Your task to perform on an android device: choose inbox layout in the gmail app Image 0: 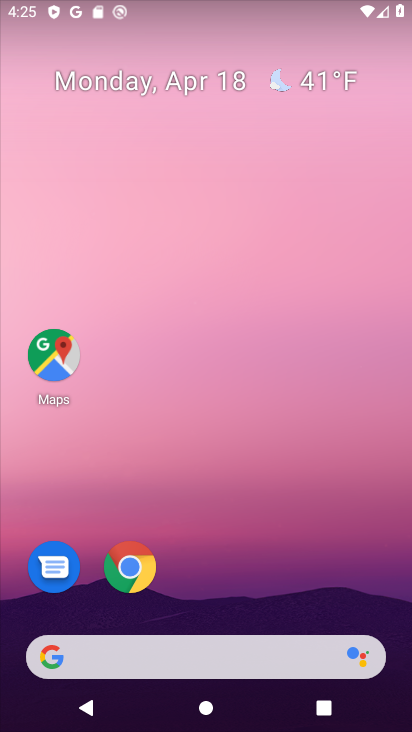
Step 0: drag from (267, 570) to (265, 137)
Your task to perform on an android device: choose inbox layout in the gmail app Image 1: 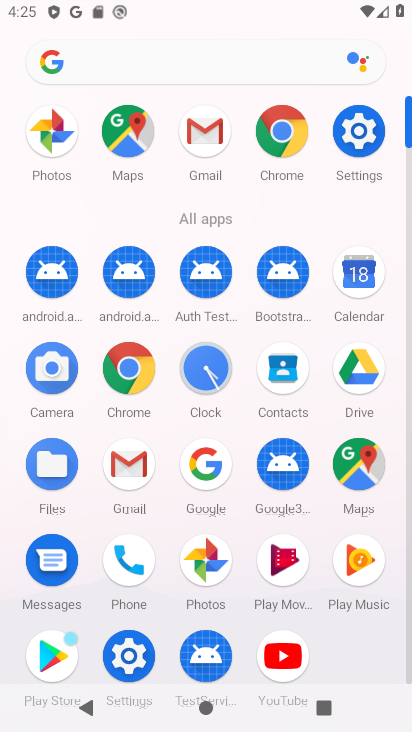
Step 1: click (135, 469)
Your task to perform on an android device: choose inbox layout in the gmail app Image 2: 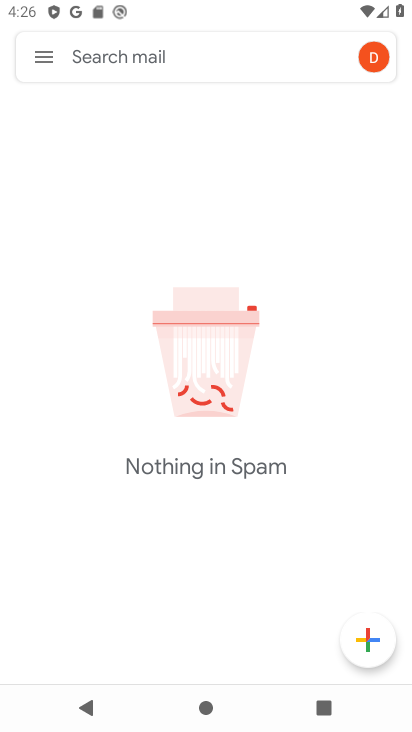
Step 2: click (48, 60)
Your task to perform on an android device: choose inbox layout in the gmail app Image 3: 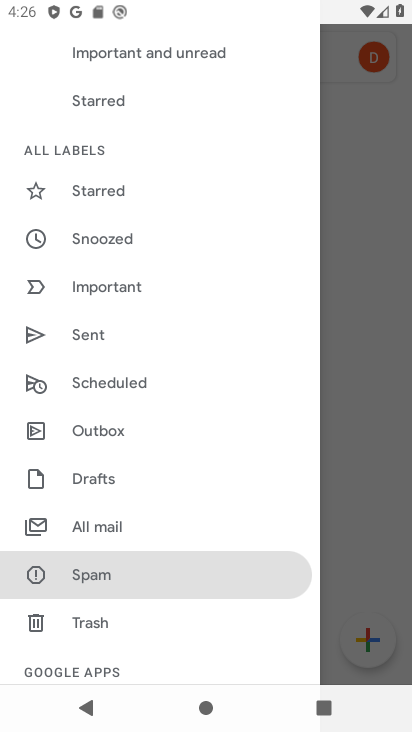
Step 3: drag from (124, 623) to (130, 493)
Your task to perform on an android device: choose inbox layout in the gmail app Image 4: 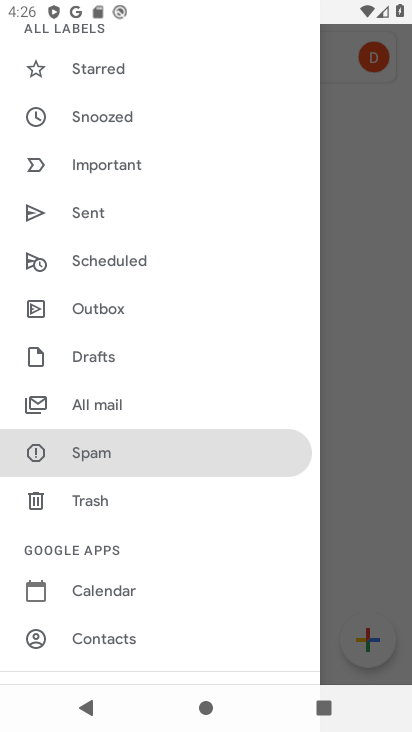
Step 4: drag from (137, 597) to (171, 465)
Your task to perform on an android device: choose inbox layout in the gmail app Image 5: 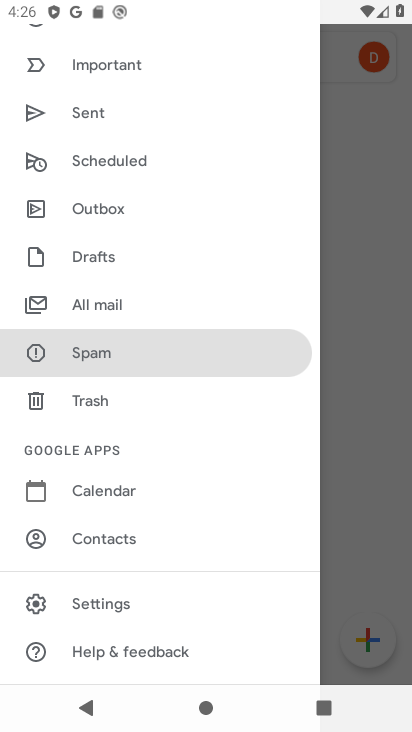
Step 5: click (115, 611)
Your task to perform on an android device: choose inbox layout in the gmail app Image 6: 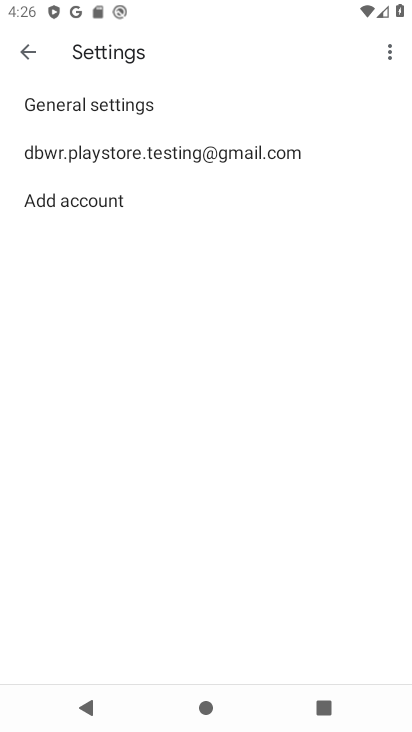
Step 6: click (122, 150)
Your task to perform on an android device: choose inbox layout in the gmail app Image 7: 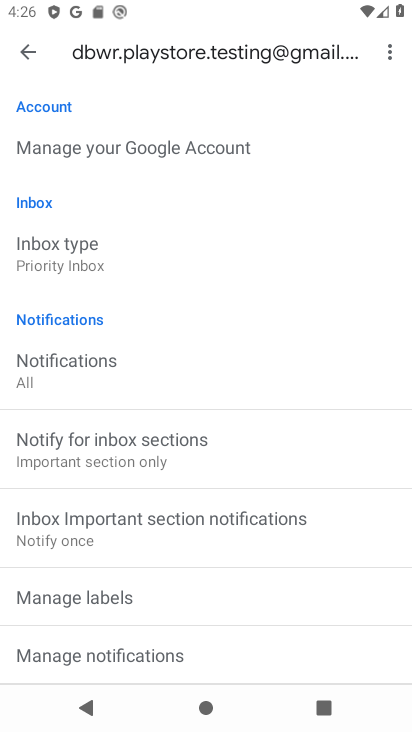
Step 7: drag from (147, 462) to (176, 368)
Your task to perform on an android device: choose inbox layout in the gmail app Image 8: 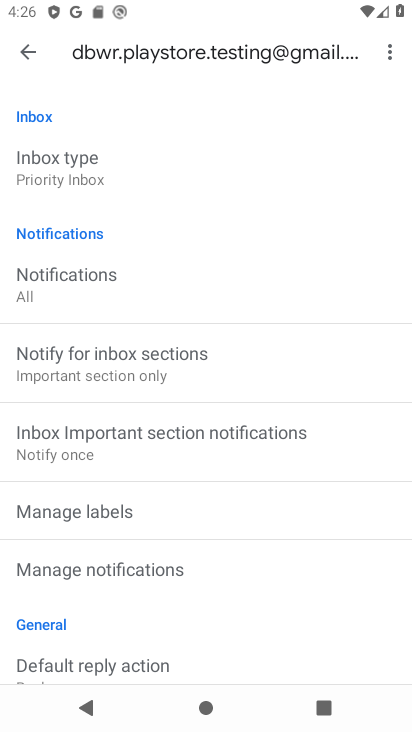
Step 8: drag from (124, 528) to (139, 409)
Your task to perform on an android device: choose inbox layout in the gmail app Image 9: 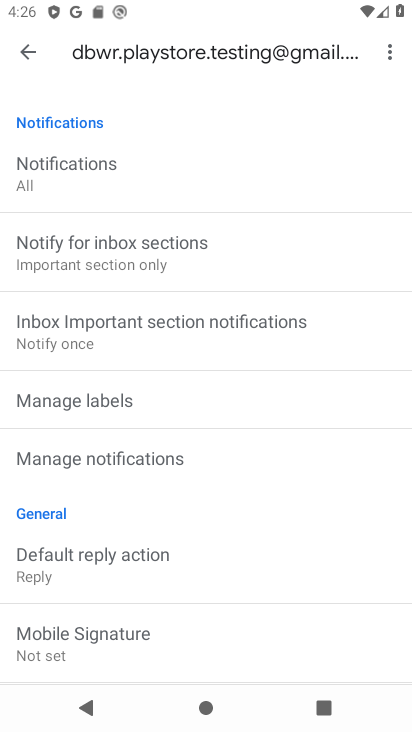
Step 9: drag from (118, 227) to (160, 416)
Your task to perform on an android device: choose inbox layout in the gmail app Image 10: 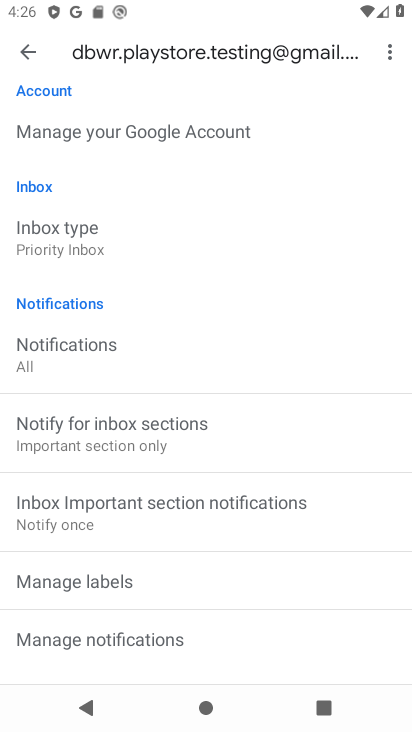
Step 10: drag from (117, 227) to (134, 432)
Your task to perform on an android device: choose inbox layout in the gmail app Image 11: 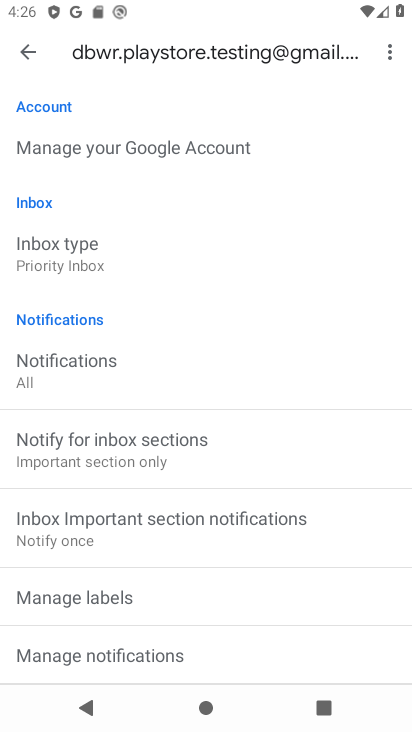
Step 11: click (78, 268)
Your task to perform on an android device: choose inbox layout in the gmail app Image 12: 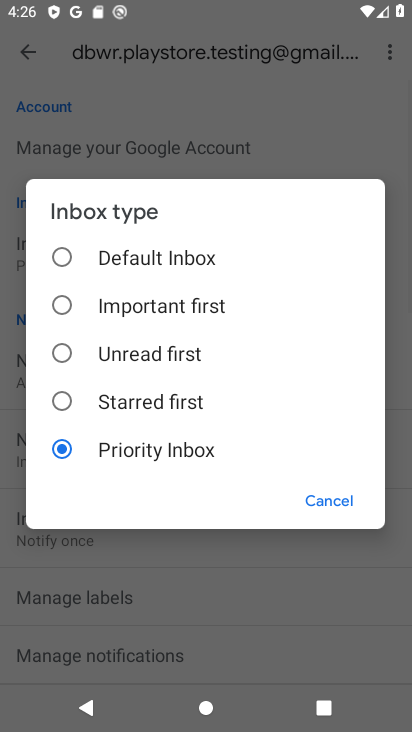
Step 12: click (78, 268)
Your task to perform on an android device: choose inbox layout in the gmail app Image 13: 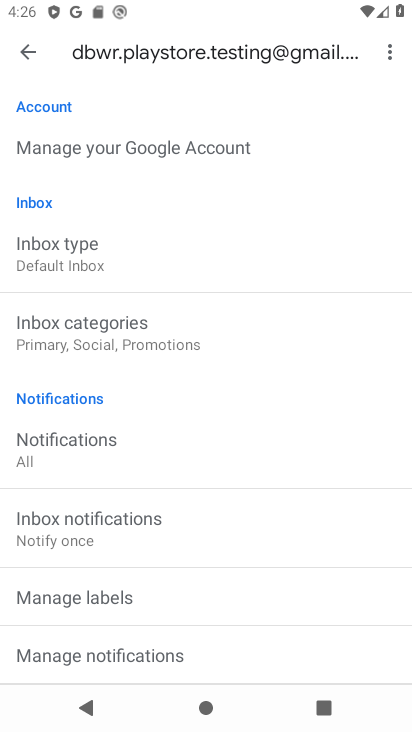
Step 13: task complete